Your task to perform on an android device: Open calendar and show me the second week of next month Image 0: 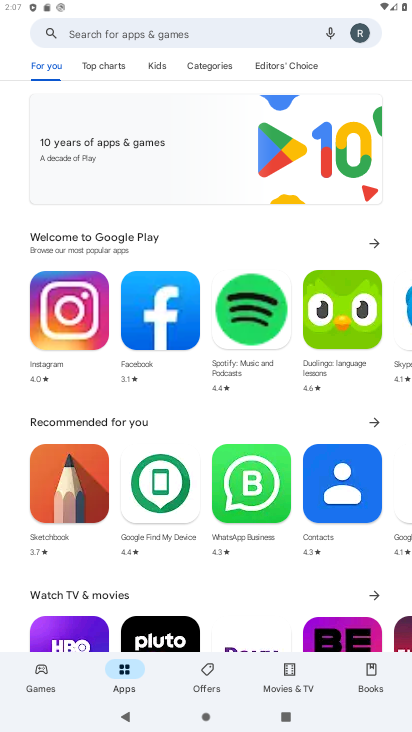
Step 0: press home button
Your task to perform on an android device: Open calendar and show me the second week of next month Image 1: 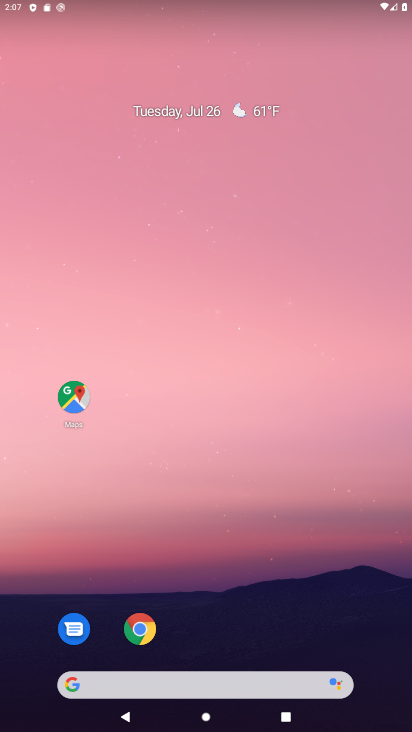
Step 1: drag from (266, 561) to (240, 165)
Your task to perform on an android device: Open calendar and show me the second week of next month Image 2: 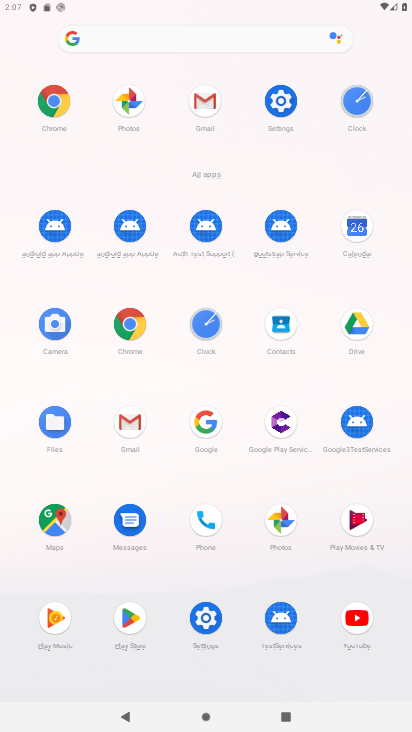
Step 2: click (353, 223)
Your task to perform on an android device: Open calendar and show me the second week of next month Image 3: 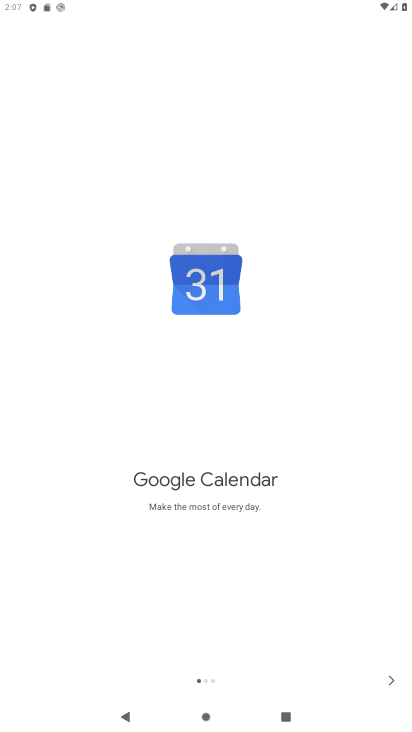
Step 3: click (392, 678)
Your task to perform on an android device: Open calendar and show me the second week of next month Image 4: 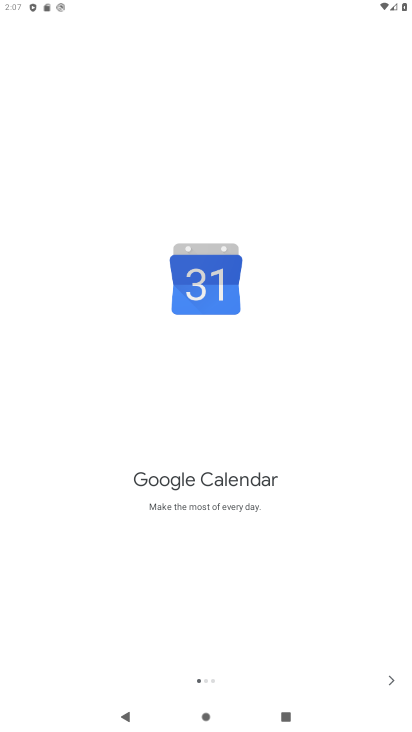
Step 4: click (392, 678)
Your task to perform on an android device: Open calendar and show me the second week of next month Image 5: 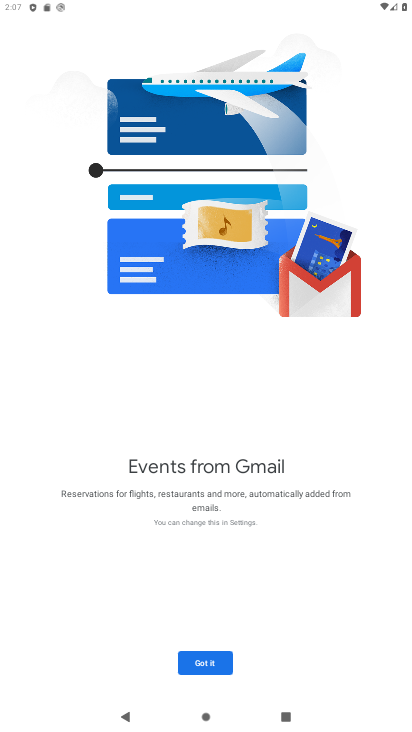
Step 5: click (204, 661)
Your task to perform on an android device: Open calendar and show me the second week of next month Image 6: 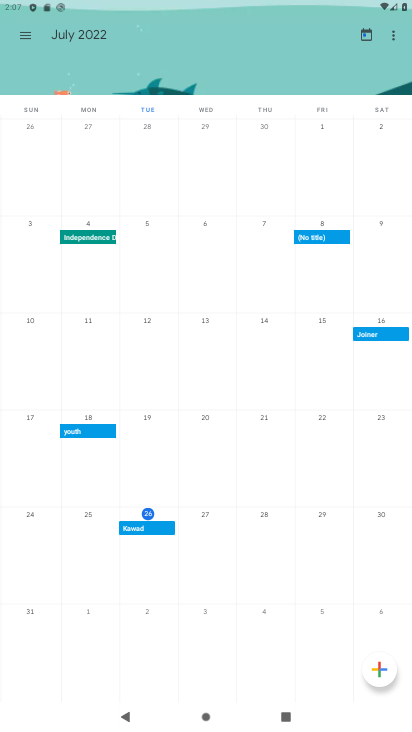
Step 6: drag from (380, 395) to (8, 388)
Your task to perform on an android device: Open calendar and show me the second week of next month Image 7: 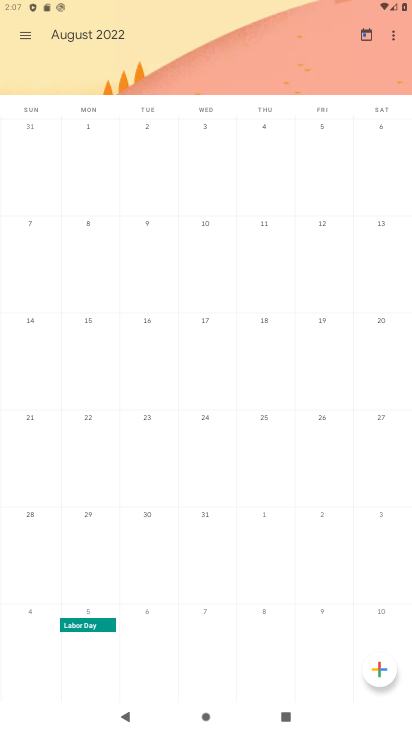
Step 7: click (24, 31)
Your task to perform on an android device: Open calendar and show me the second week of next month Image 8: 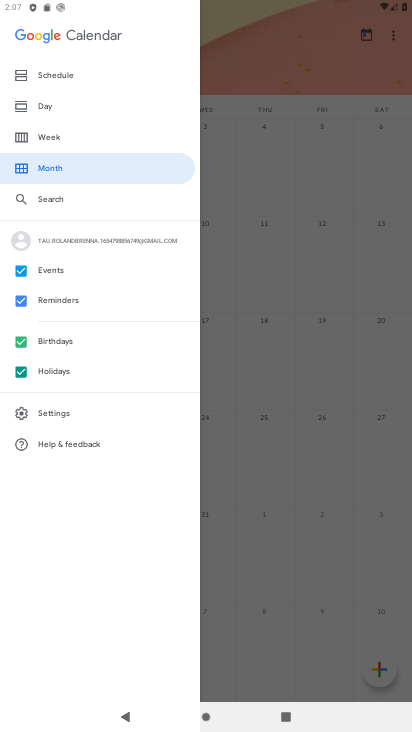
Step 8: click (260, 212)
Your task to perform on an android device: Open calendar and show me the second week of next month Image 9: 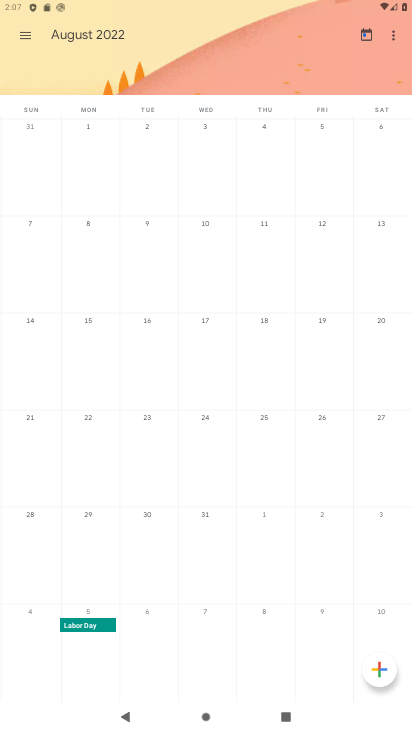
Step 9: click (146, 218)
Your task to perform on an android device: Open calendar and show me the second week of next month Image 10: 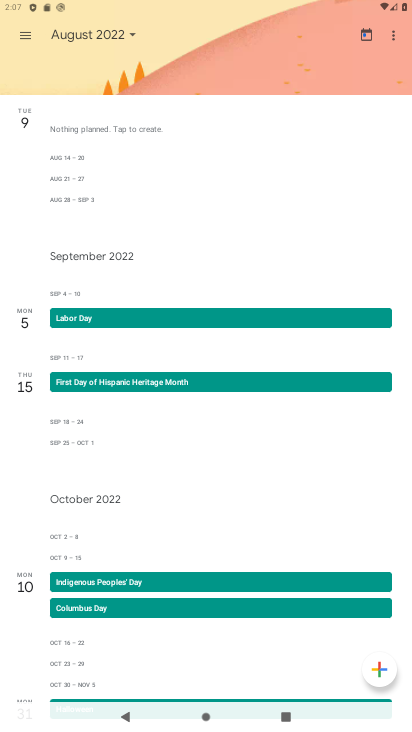
Step 10: click (28, 36)
Your task to perform on an android device: Open calendar and show me the second week of next month Image 11: 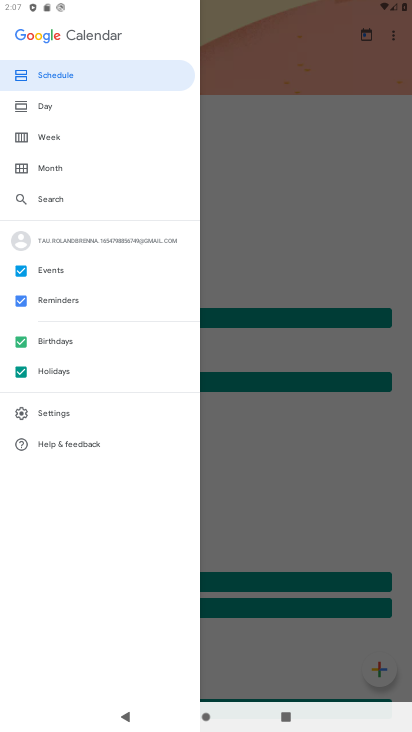
Step 11: click (50, 135)
Your task to perform on an android device: Open calendar and show me the second week of next month Image 12: 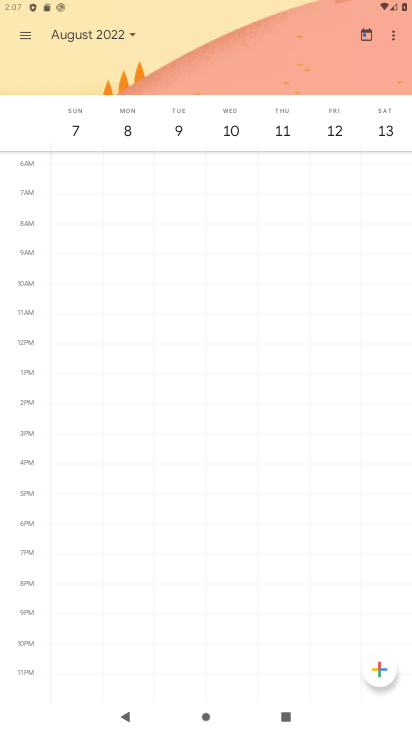
Step 12: task complete